Your task to perform on an android device: toggle airplane mode Image 0: 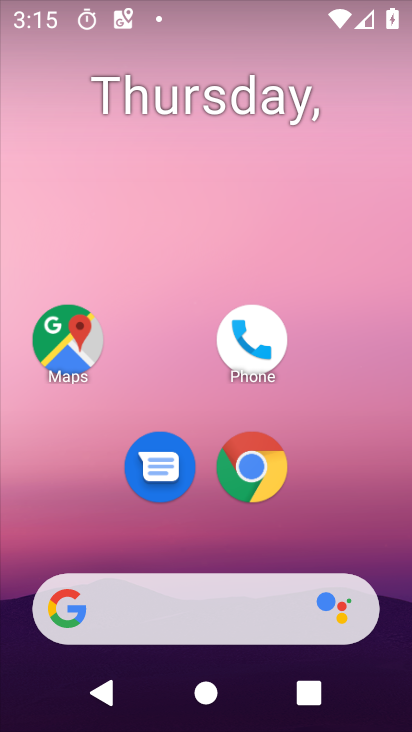
Step 0: drag from (194, 529) to (216, 216)
Your task to perform on an android device: toggle airplane mode Image 1: 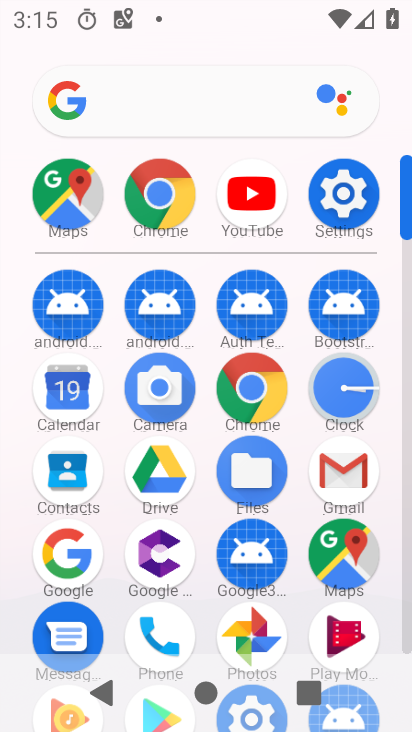
Step 1: click (359, 194)
Your task to perform on an android device: toggle airplane mode Image 2: 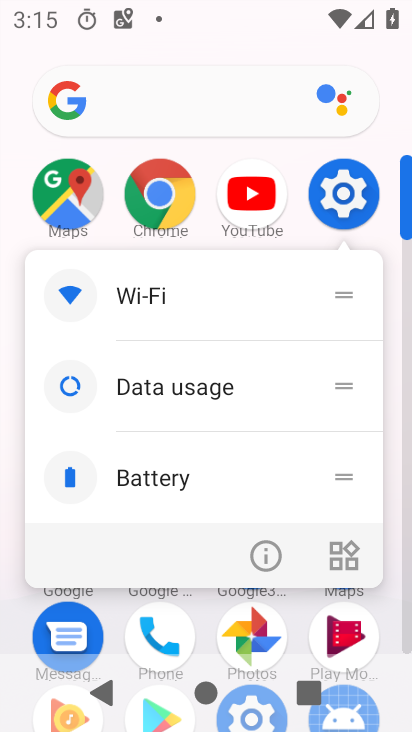
Step 2: click (272, 560)
Your task to perform on an android device: toggle airplane mode Image 3: 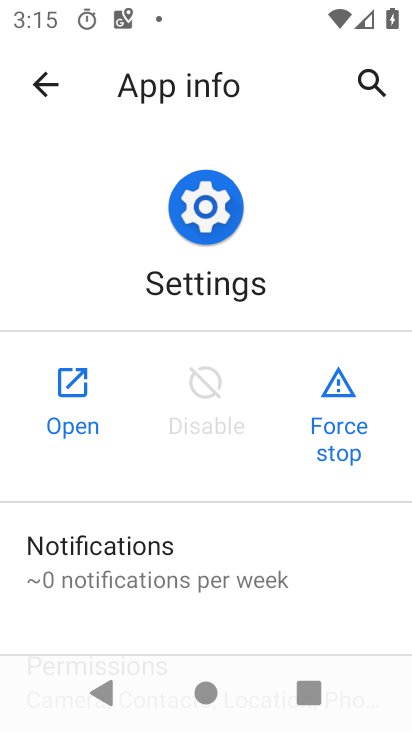
Step 3: click (64, 393)
Your task to perform on an android device: toggle airplane mode Image 4: 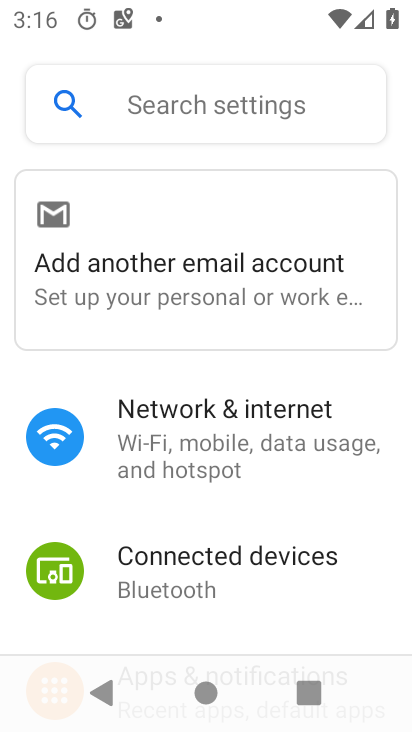
Step 4: click (203, 382)
Your task to perform on an android device: toggle airplane mode Image 5: 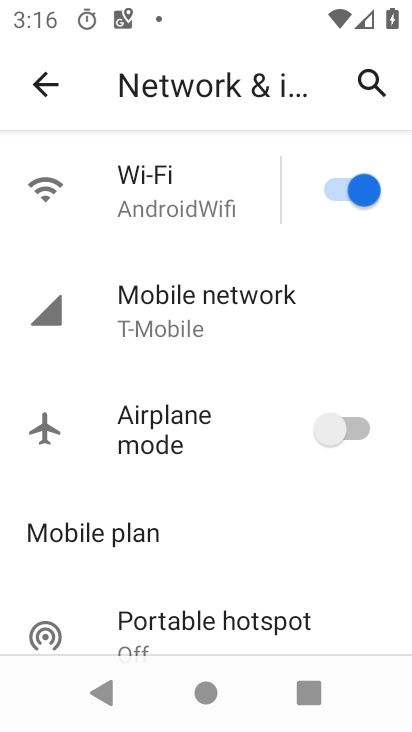
Step 5: click (225, 429)
Your task to perform on an android device: toggle airplane mode Image 6: 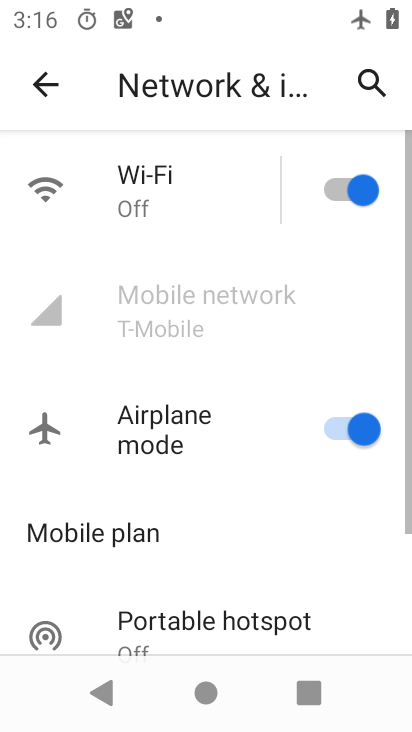
Step 6: task complete